Your task to perform on an android device: turn off javascript in the chrome app Image 0: 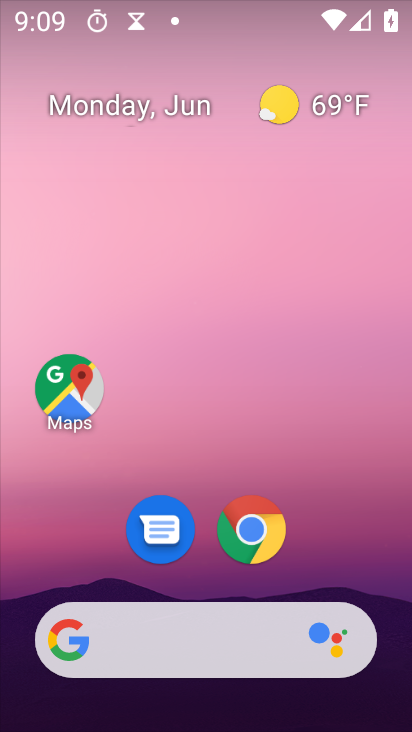
Step 0: click (255, 513)
Your task to perform on an android device: turn off javascript in the chrome app Image 1: 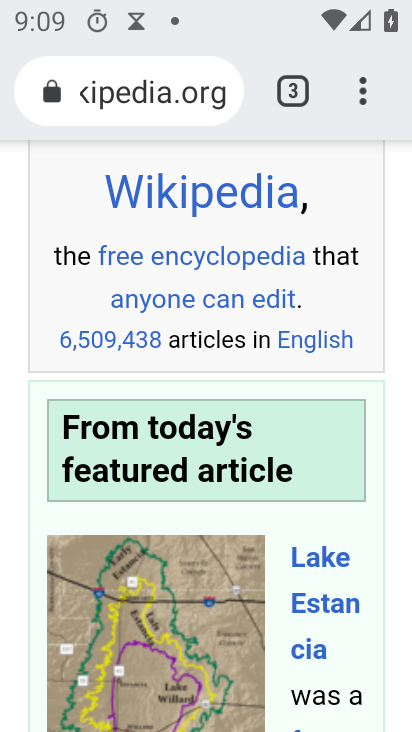
Step 1: click (355, 72)
Your task to perform on an android device: turn off javascript in the chrome app Image 2: 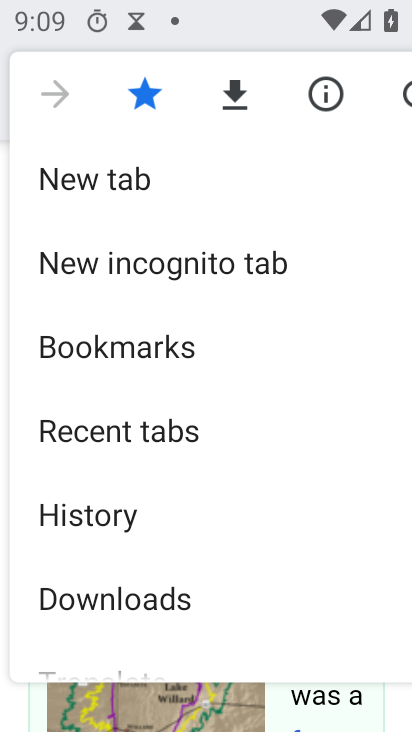
Step 2: drag from (288, 530) to (287, 96)
Your task to perform on an android device: turn off javascript in the chrome app Image 3: 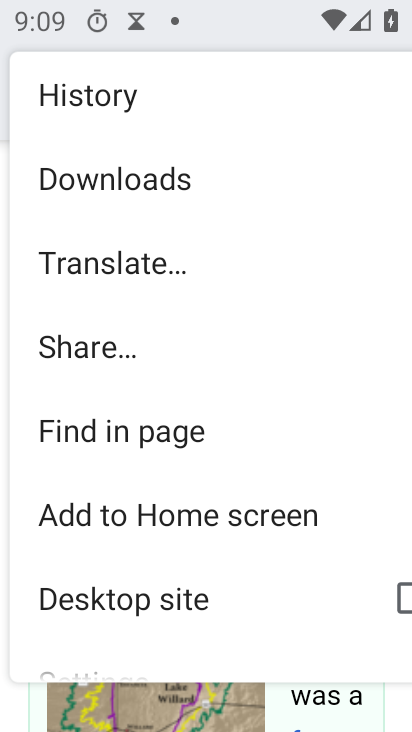
Step 3: drag from (157, 554) to (177, 92)
Your task to perform on an android device: turn off javascript in the chrome app Image 4: 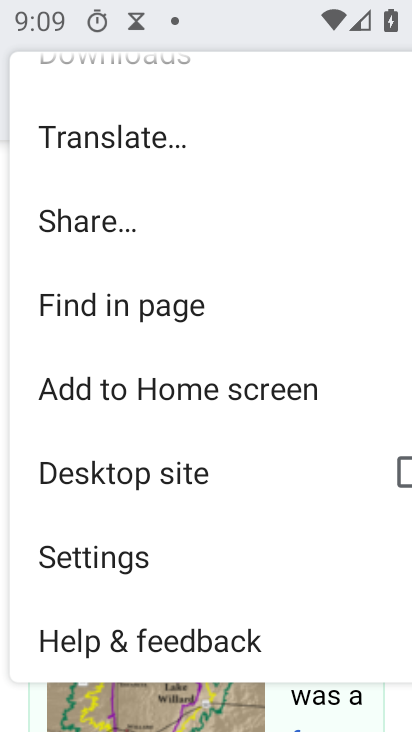
Step 4: click (148, 554)
Your task to perform on an android device: turn off javascript in the chrome app Image 5: 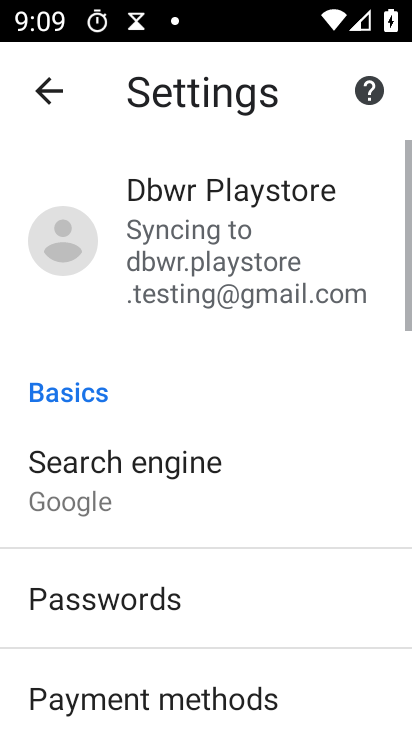
Step 5: drag from (159, 634) to (198, 119)
Your task to perform on an android device: turn off javascript in the chrome app Image 6: 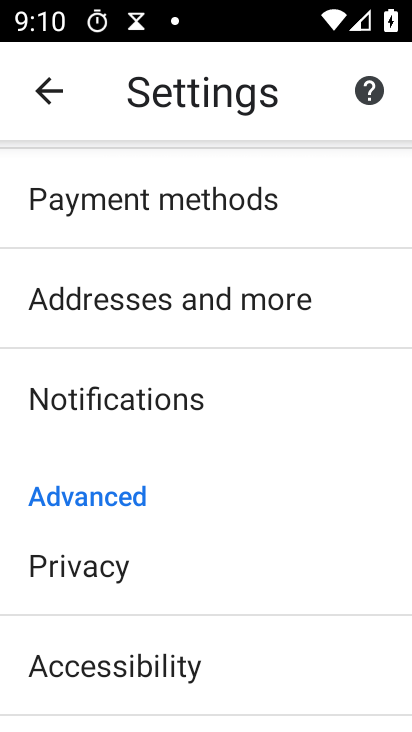
Step 6: drag from (217, 570) to (217, 152)
Your task to perform on an android device: turn off javascript in the chrome app Image 7: 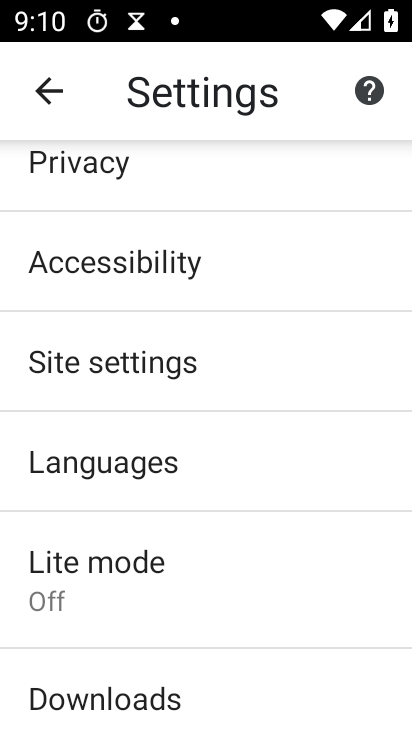
Step 7: click (186, 364)
Your task to perform on an android device: turn off javascript in the chrome app Image 8: 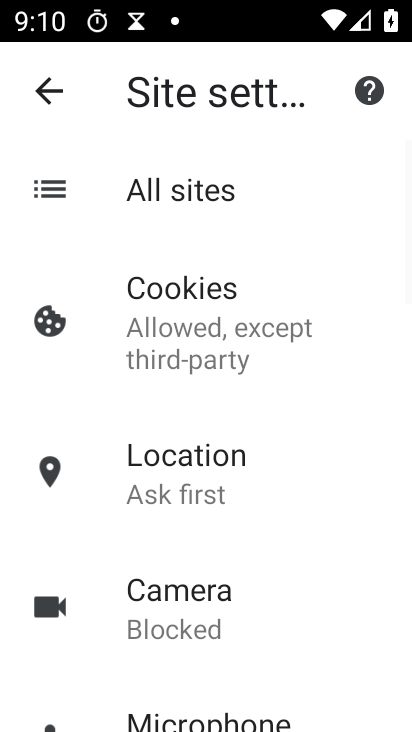
Step 8: drag from (240, 548) to (219, 173)
Your task to perform on an android device: turn off javascript in the chrome app Image 9: 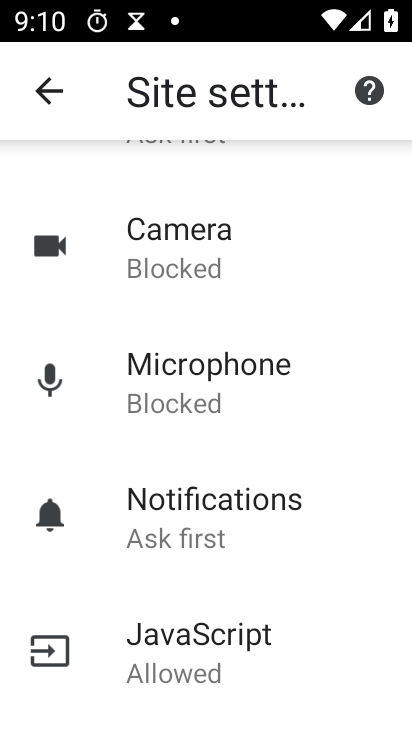
Step 9: click (223, 633)
Your task to perform on an android device: turn off javascript in the chrome app Image 10: 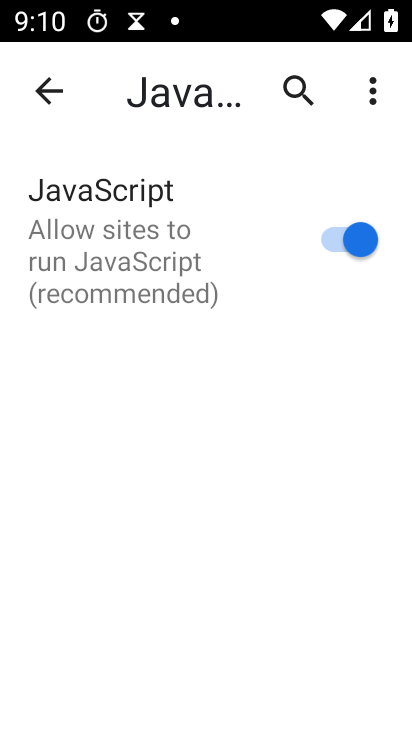
Step 10: click (365, 229)
Your task to perform on an android device: turn off javascript in the chrome app Image 11: 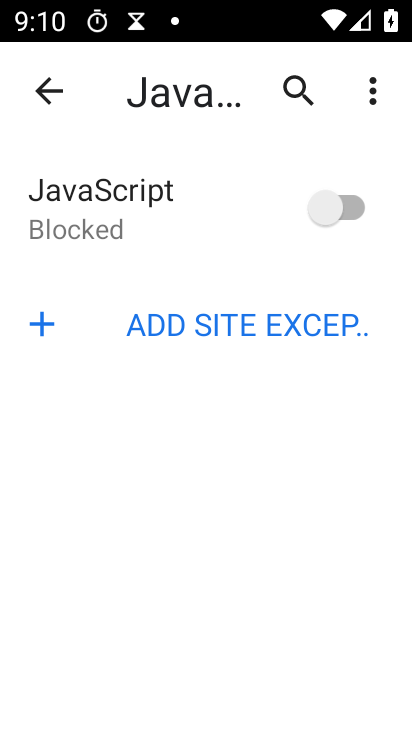
Step 11: task complete